Your task to perform on an android device: See recent photos Image 0: 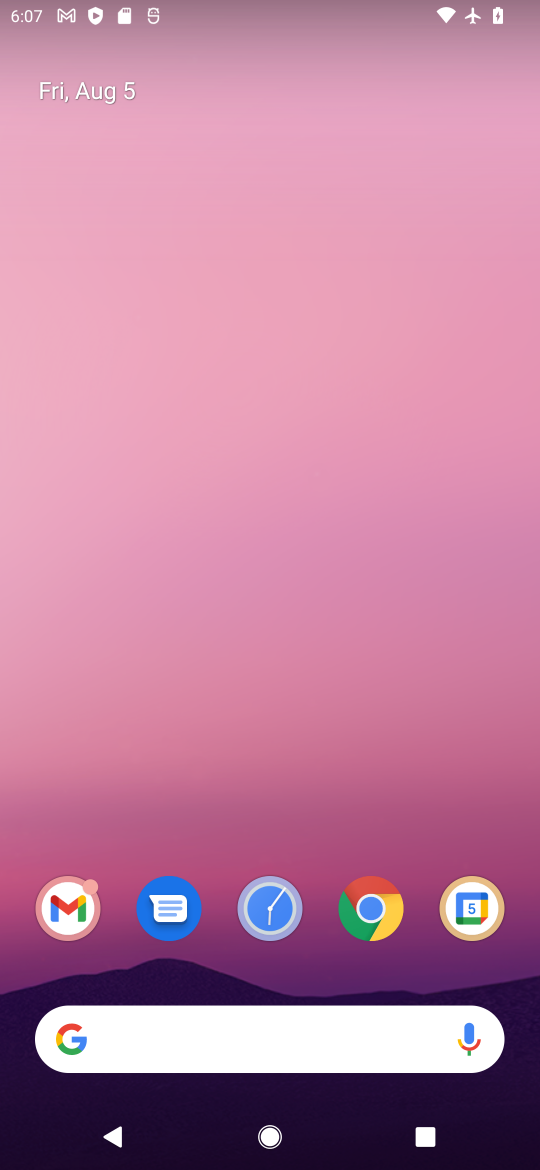
Step 0: drag from (248, 932) to (248, 164)
Your task to perform on an android device: See recent photos Image 1: 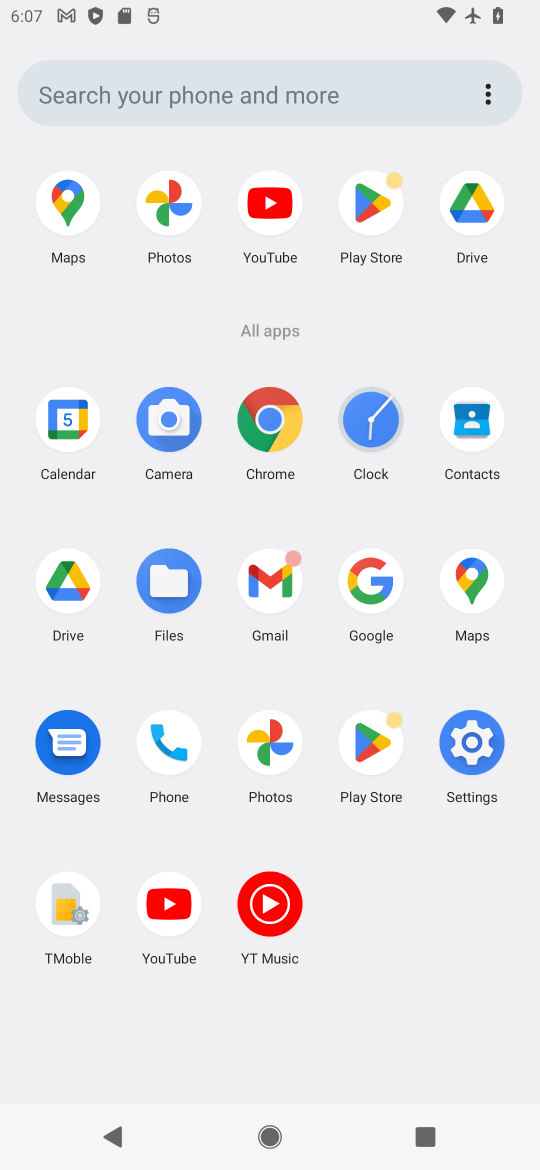
Step 1: click (264, 763)
Your task to perform on an android device: See recent photos Image 2: 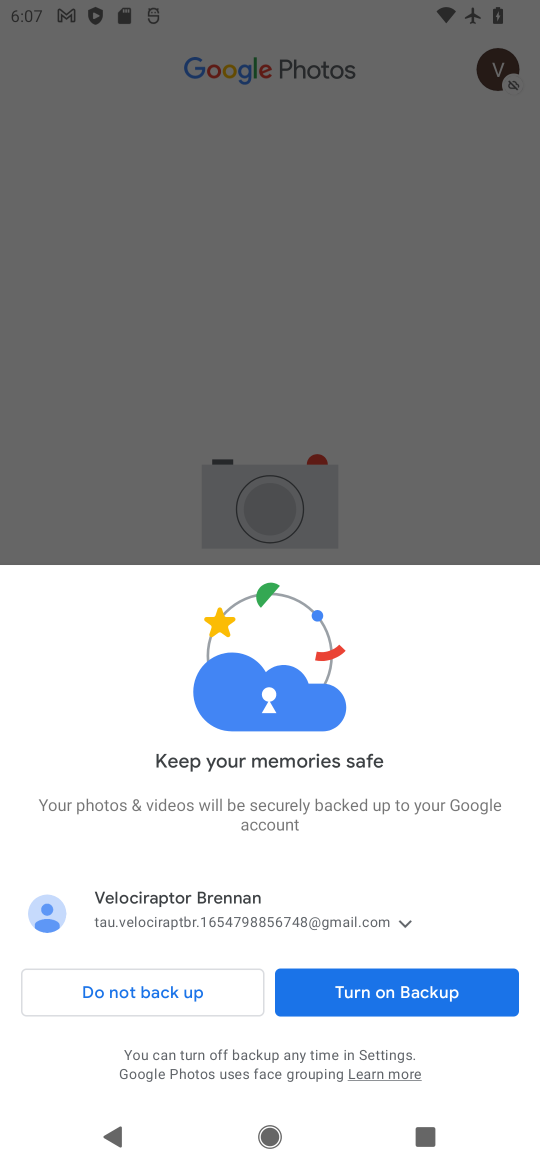
Step 2: click (384, 990)
Your task to perform on an android device: See recent photos Image 3: 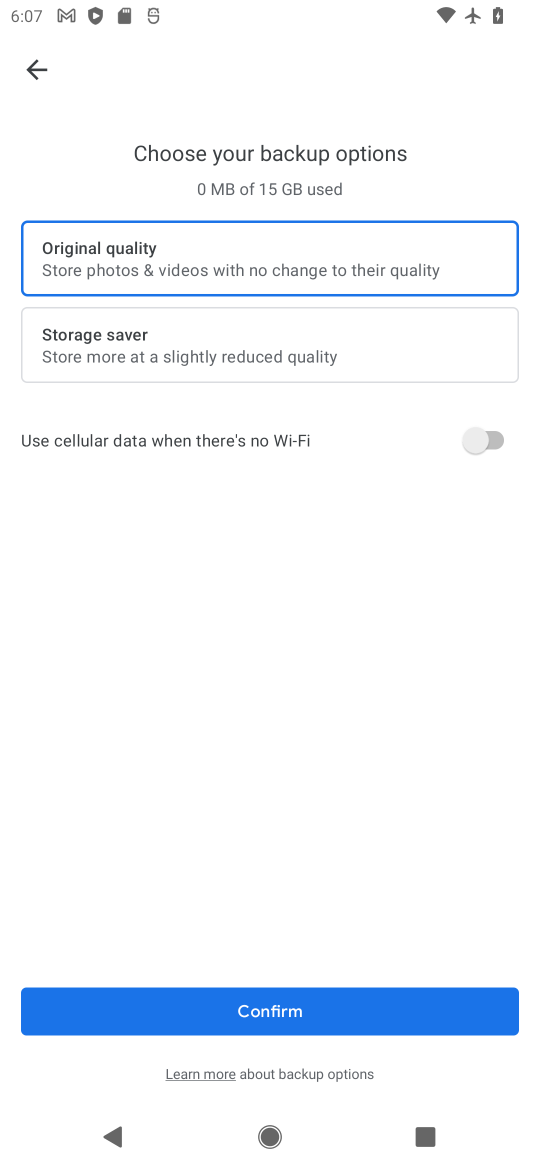
Step 3: click (289, 1000)
Your task to perform on an android device: See recent photos Image 4: 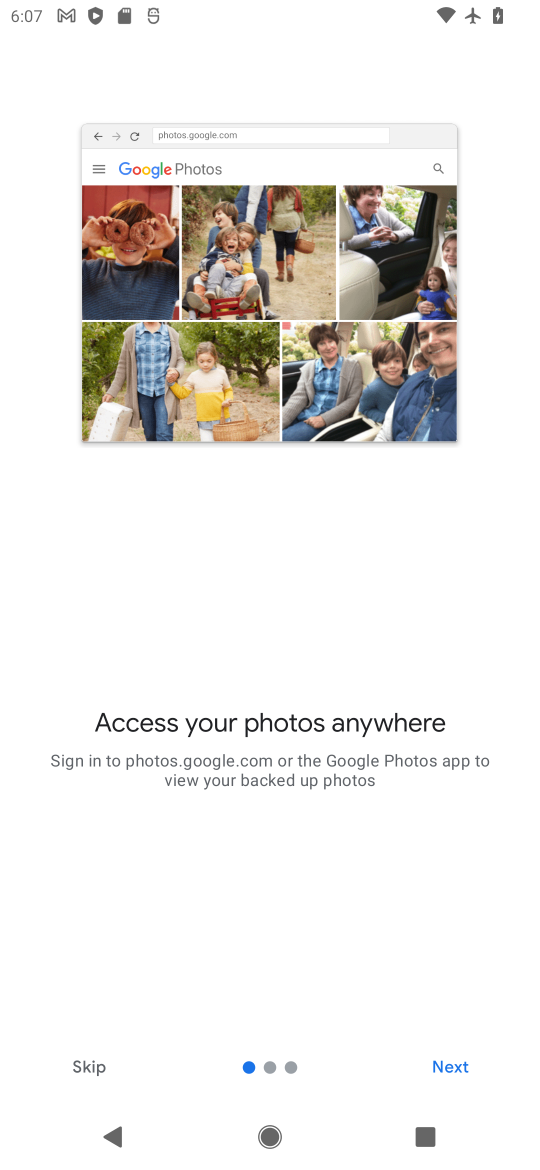
Step 4: click (445, 1075)
Your task to perform on an android device: See recent photos Image 5: 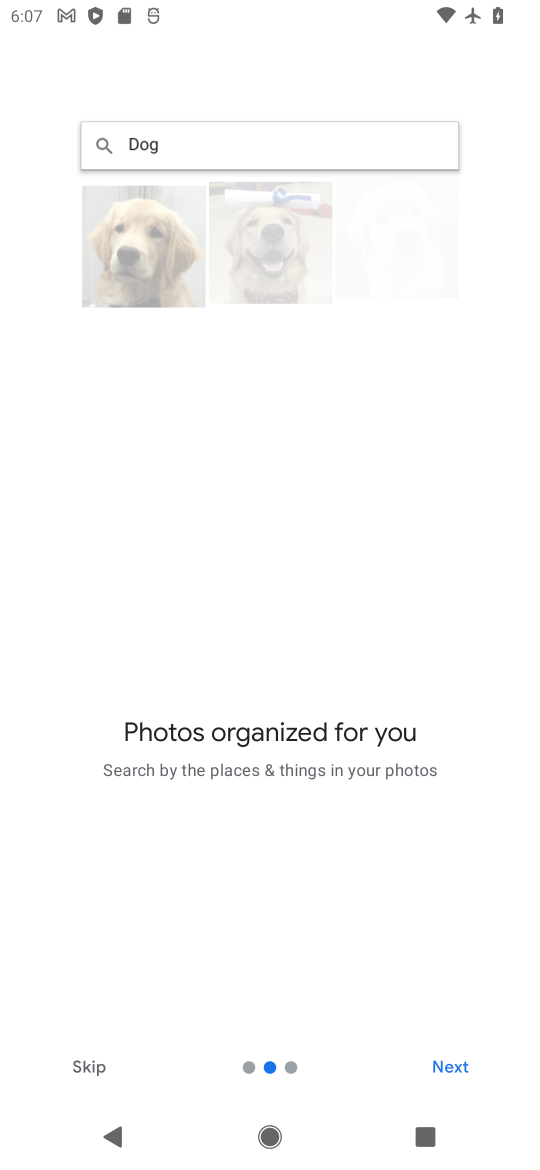
Step 5: click (445, 1075)
Your task to perform on an android device: See recent photos Image 6: 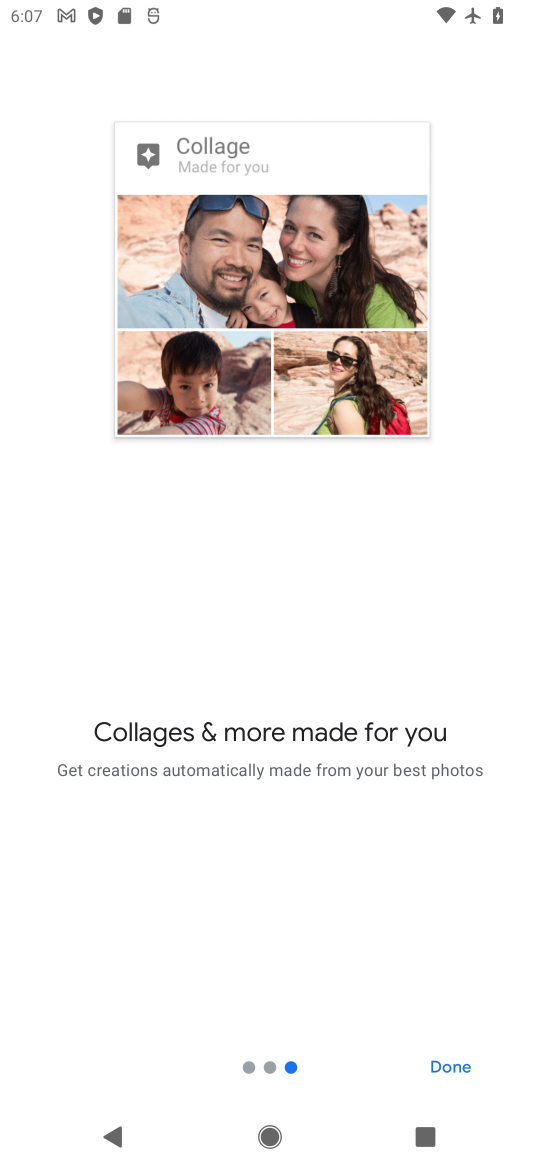
Step 6: click (445, 1062)
Your task to perform on an android device: See recent photos Image 7: 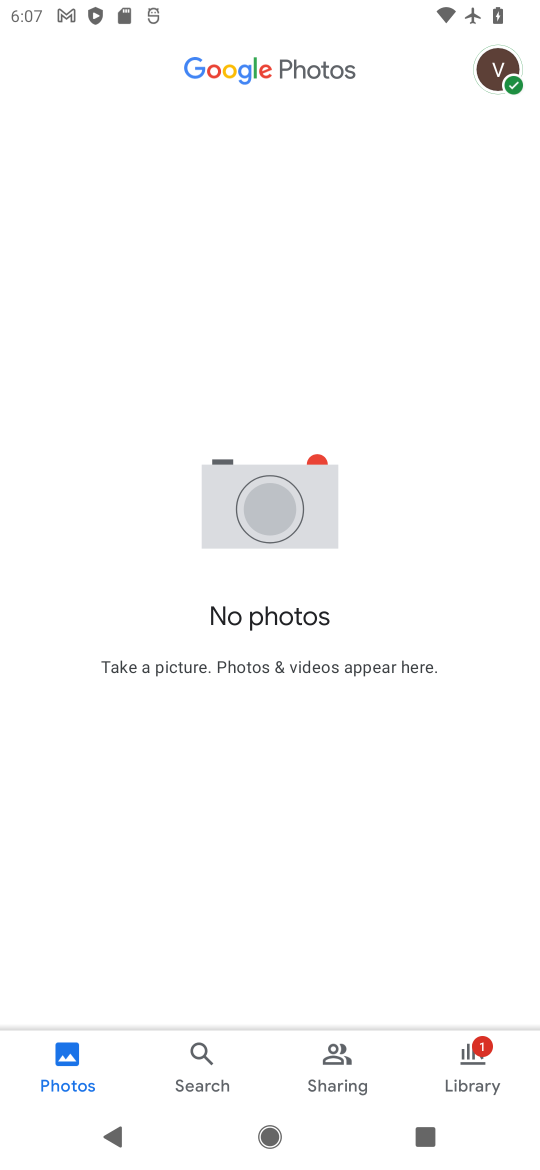
Step 7: click (463, 1069)
Your task to perform on an android device: See recent photos Image 8: 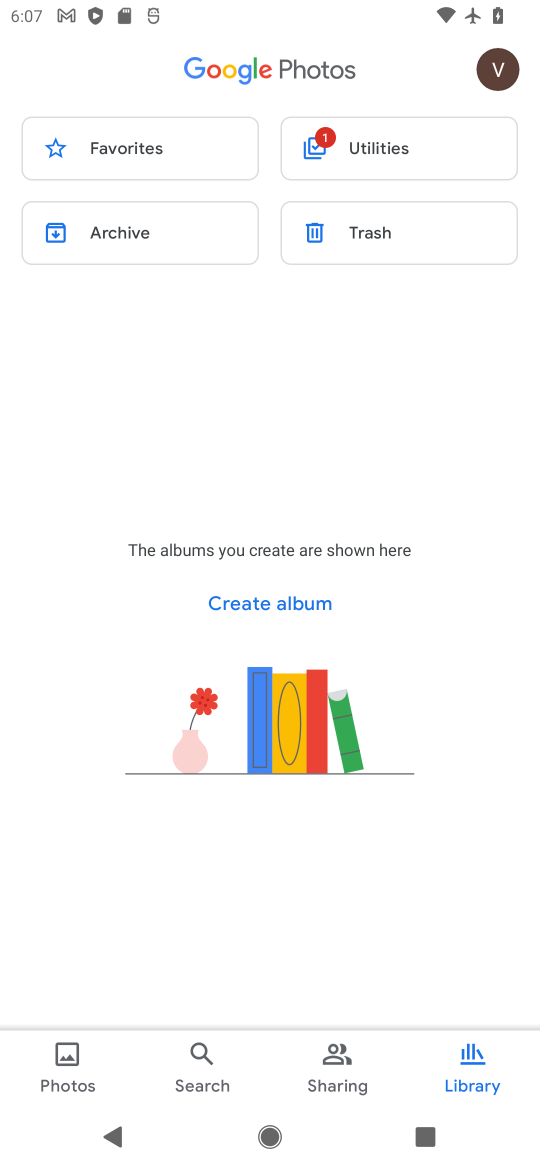
Step 8: task complete